Your task to perform on an android device: remove spam from my inbox in the gmail app Image 0: 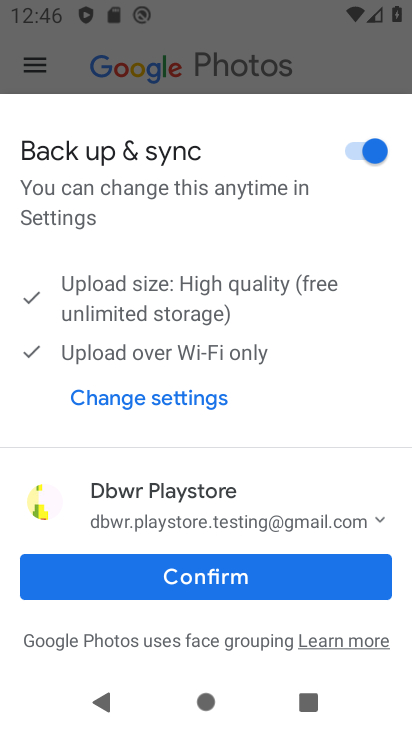
Step 0: press home button
Your task to perform on an android device: remove spam from my inbox in the gmail app Image 1: 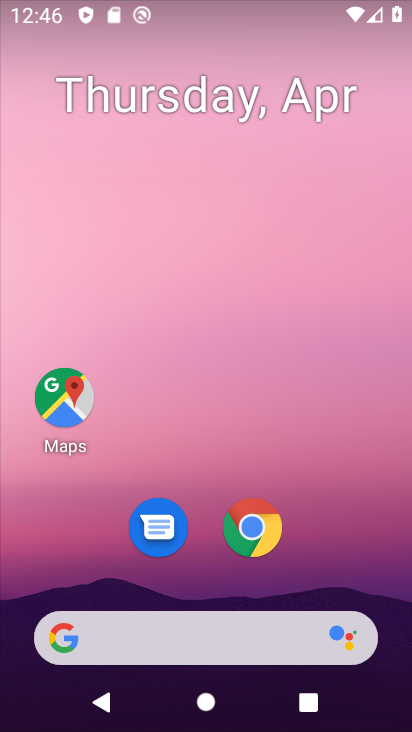
Step 1: drag from (192, 371) to (225, 97)
Your task to perform on an android device: remove spam from my inbox in the gmail app Image 2: 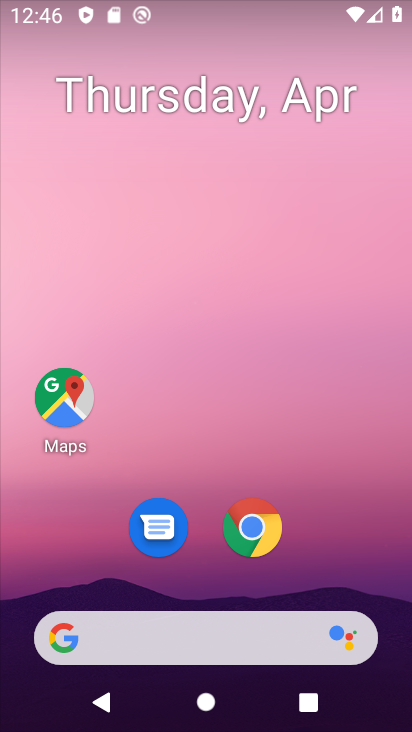
Step 2: drag from (222, 235) to (226, 105)
Your task to perform on an android device: remove spam from my inbox in the gmail app Image 3: 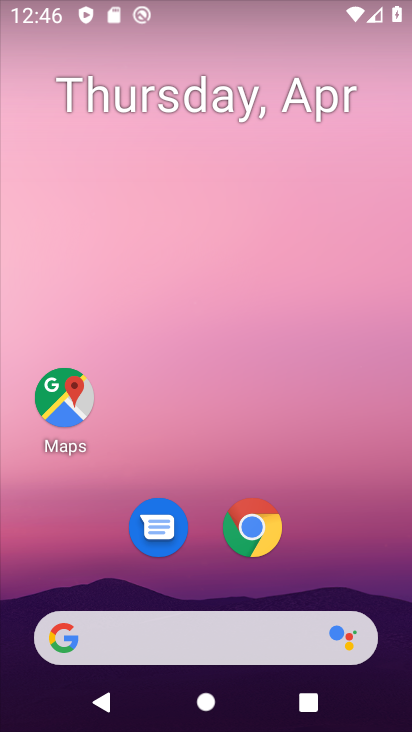
Step 3: drag from (196, 539) to (227, 25)
Your task to perform on an android device: remove spam from my inbox in the gmail app Image 4: 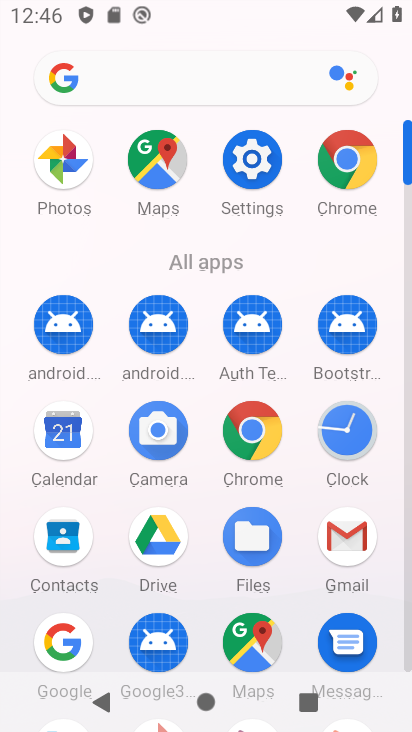
Step 4: click (356, 575)
Your task to perform on an android device: remove spam from my inbox in the gmail app Image 5: 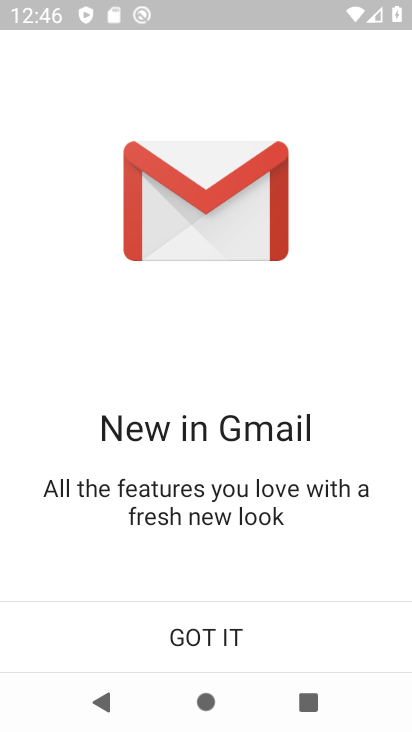
Step 5: click (182, 619)
Your task to perform on an android device: remove spam from my inbox in the gmail app Image 6: 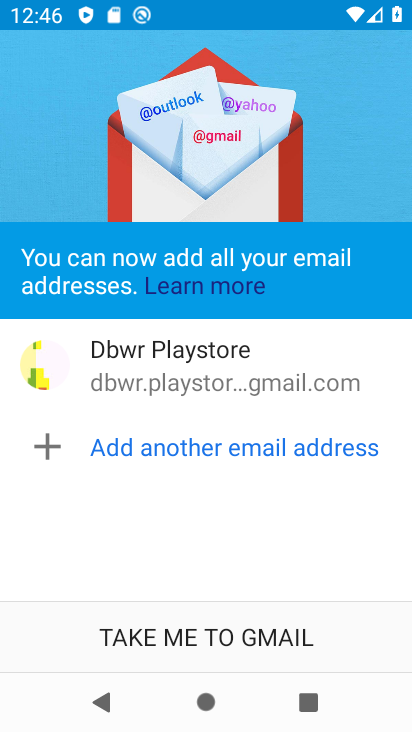
Step 6: click (182, 619)
Your task to perform on an android device: remove spam from my inbox in the gmail app Image 7: 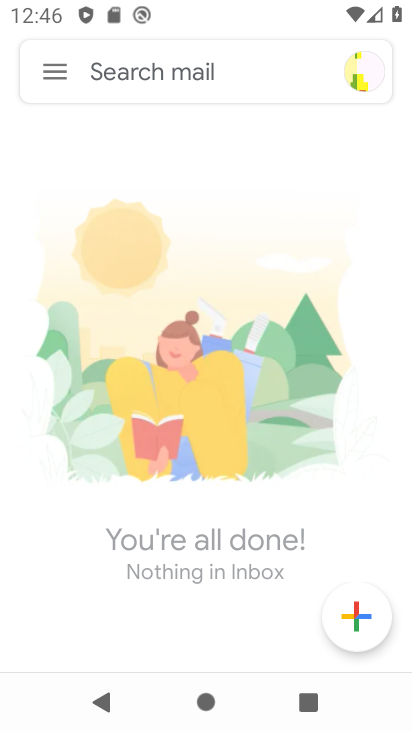
Step 7: click (50, 75)
Your task to perform on an android device: remove spam from my inbox in the gmail app Image 8: 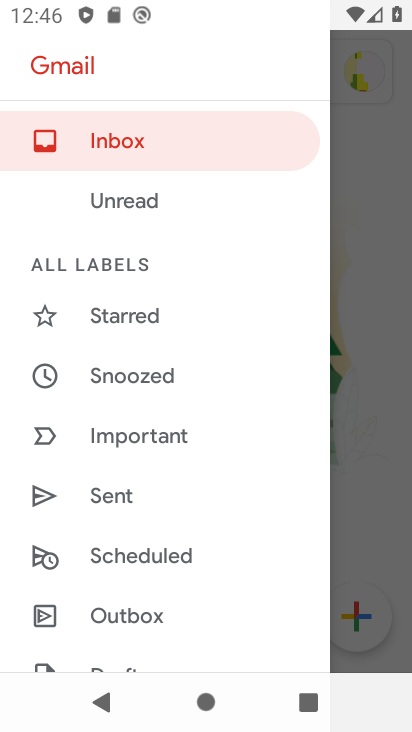
Step 8: drag from (178, 565) to (194, 251)
Your task to perform on an android device: remove spam from my inbox in the gmail app Image 9: 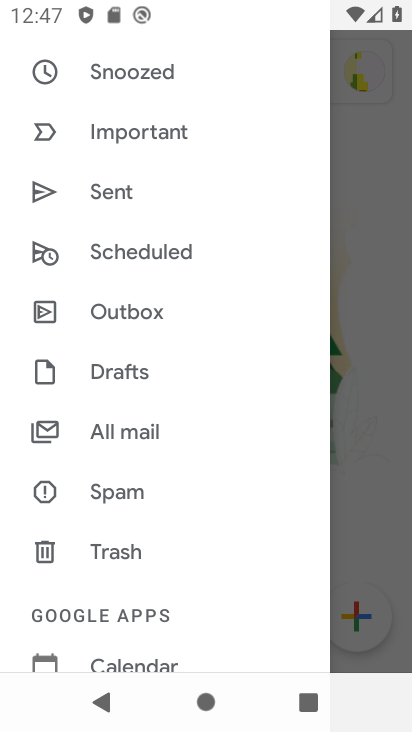
Step 9: click (128, 509)
Your task to perform on an android device: remove spam from my inbox in the gmail app Image 10: 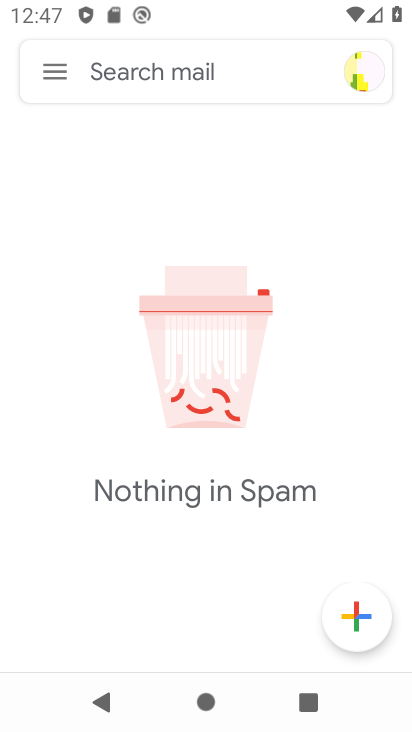
Step 10: task complete